Your task to perform on an android device: open a bookmark in the chrome app Image 0: 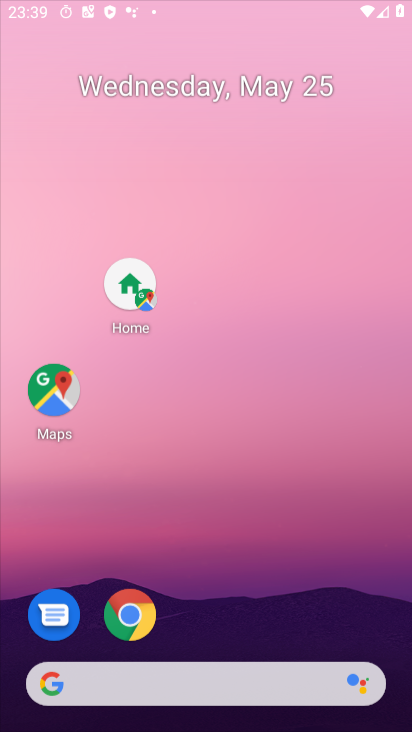
Step 0: press home button
Your task to perform on an android device: open a bookmark in the chrome app Image 1: 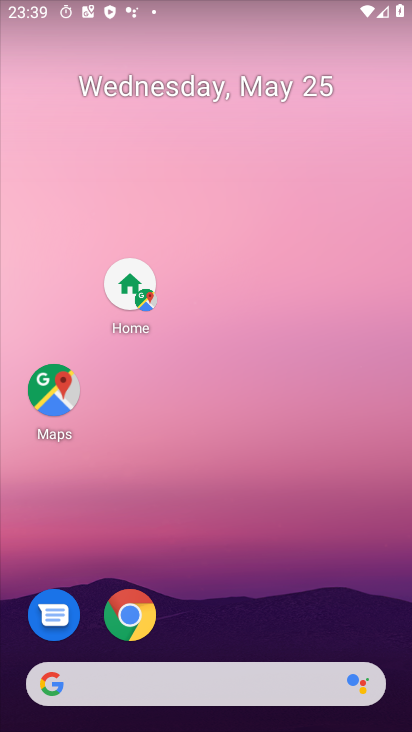
Step 1: click (137, 617)
Your task to perform on an android device: open a bookmark in the chrome app Image 2: 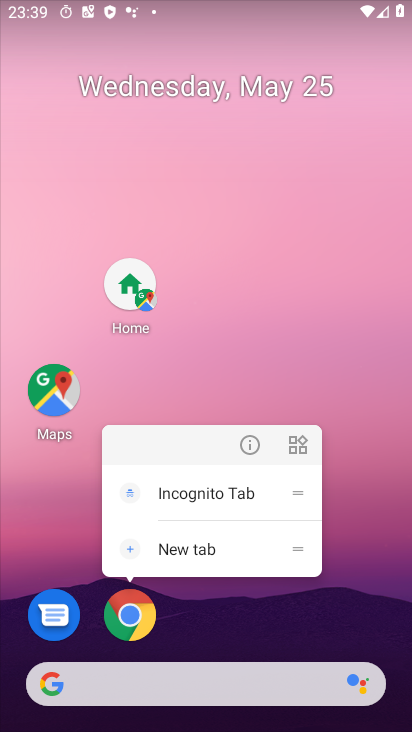
Step 2: click (137, 617)
Your task to perform on an android device: open a bookmark in the chrome app Image 3: 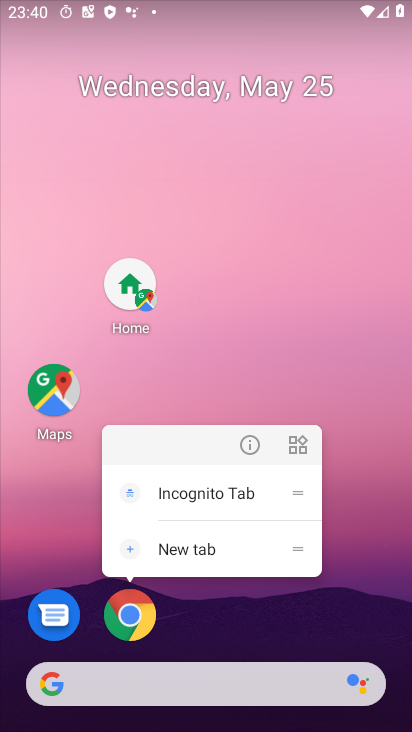
Step 3: click (137, 617)
Your task to perform on an android device: open a bookmark in the chrome app Image 4: 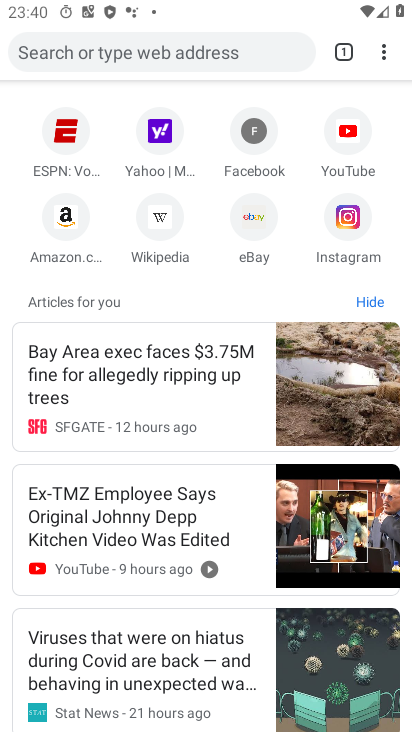
Step 4: task complete